Your task to perform on an android device: turn notification dots on Image 0: 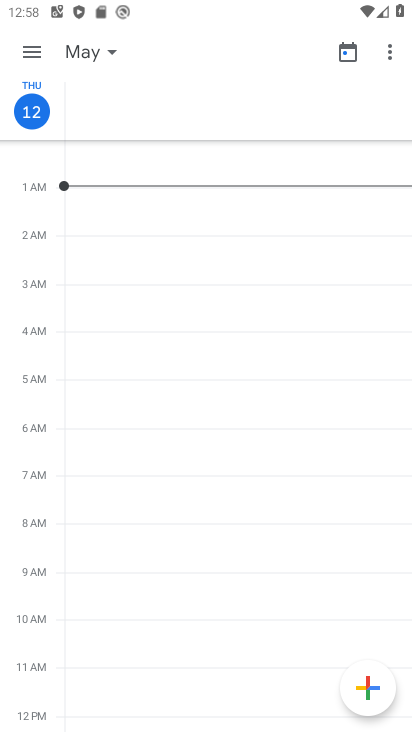
Step 0: press home button
Your task to perform on an android device: turn notification dots on Image 1: 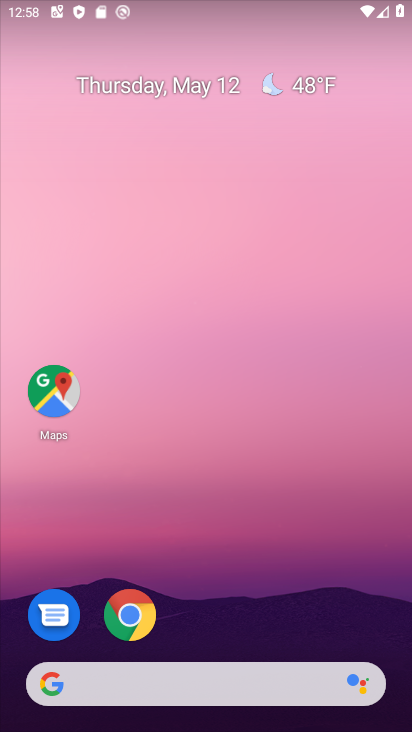
Step 1: drag from (250, 677) to (249, 4)
Your task to perform on an android device: turn notification dots on Image 2: 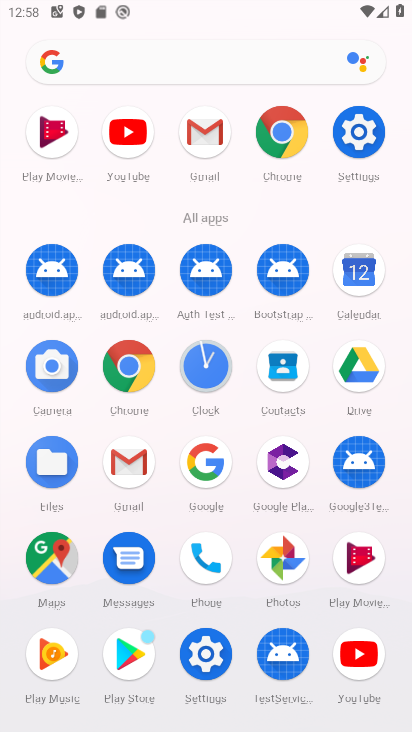
Step 2: click (371, 140)
Your task to perform on an android device: turn notification dots on Image 3: 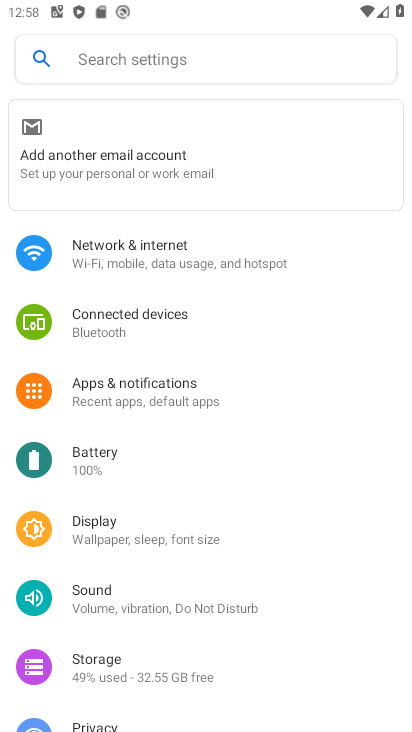
Step 3: click (161, 383)
Your task to perform on an android device: turn notification dots on Image 4: 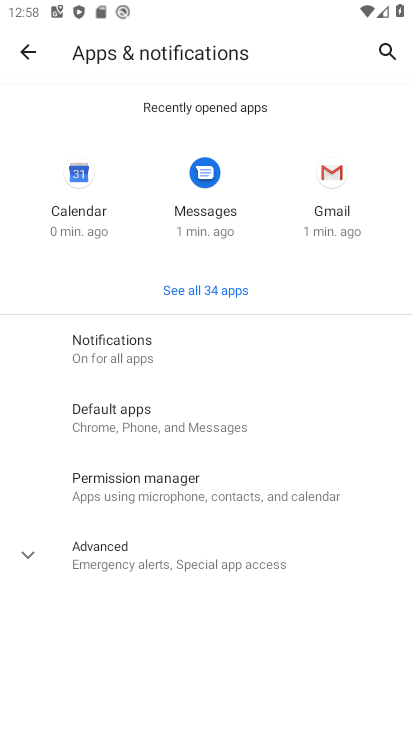
Step 4: click (192, 338)
Your task to perform on an android device: turn notification dots on Image 5: 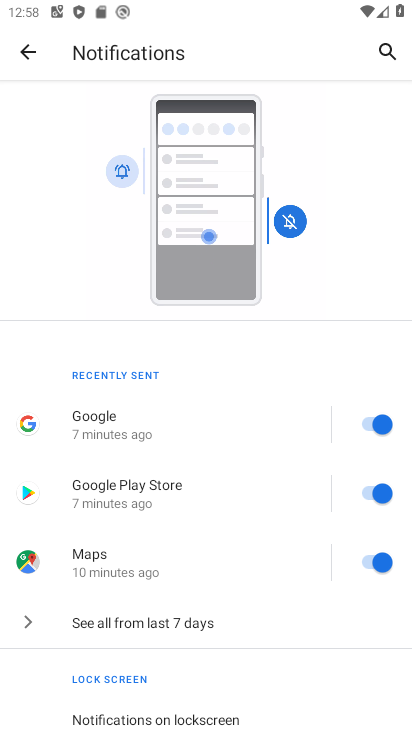
Step 5: drag from (149, 638) to (186, 164)
Your task to perform on an android device: turn notification dots on Image 6: 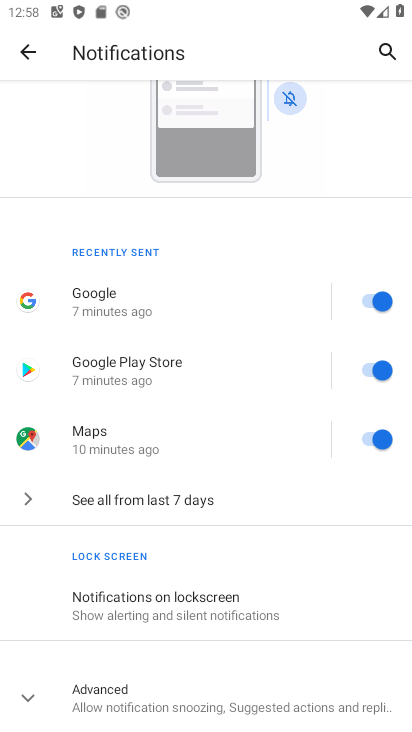
Step 6: click (160, 695)
Your task to perform on an android device: turn notification dots on Image 7: 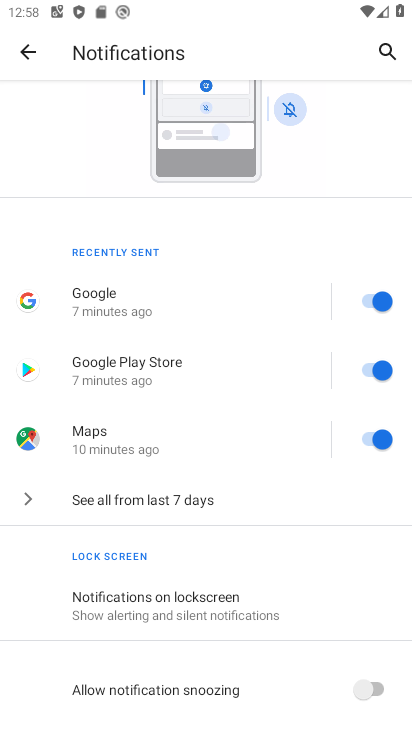
Step 7: task complete